Your task to perform on an android device: toggle sleep mode Image 0: 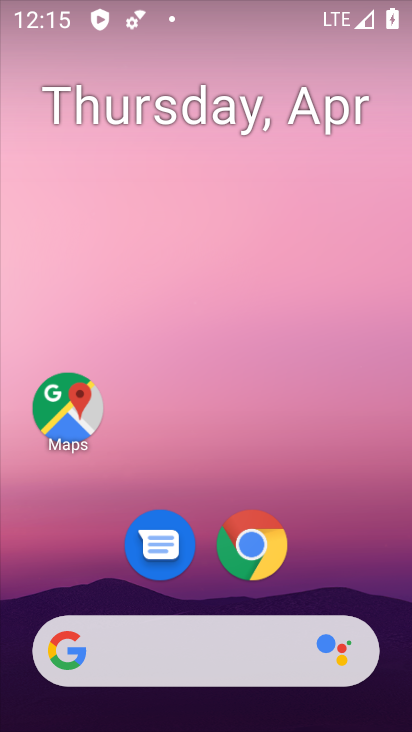
Step 0: drag from (359, 265) to (358, 38)
Your task to perform on an android device: toggle sleep mode Image 1: 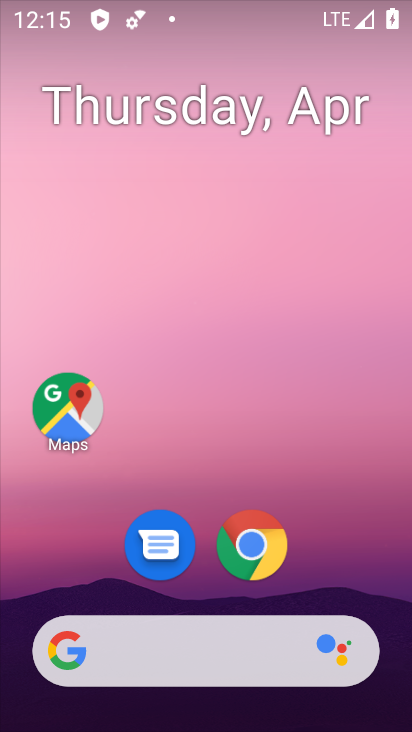
Step 1: drag from (380, 559) to (351, 168)
Your task to perform on an android device: toggle sleep mode Image 2: 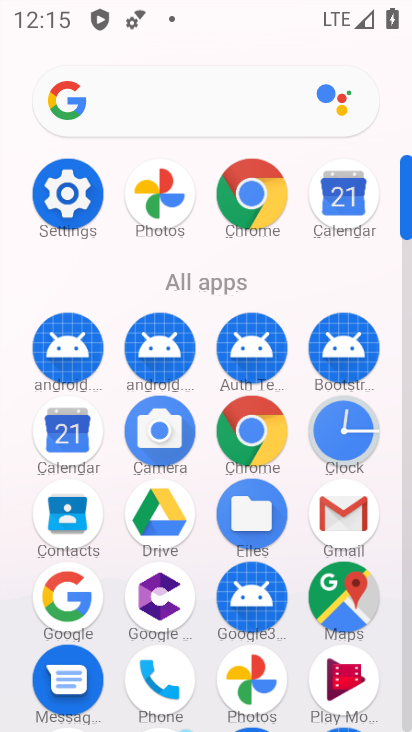
Step 2: click (75, 201)
Your task to perform on an android device: toggle sleep mode Image 3: 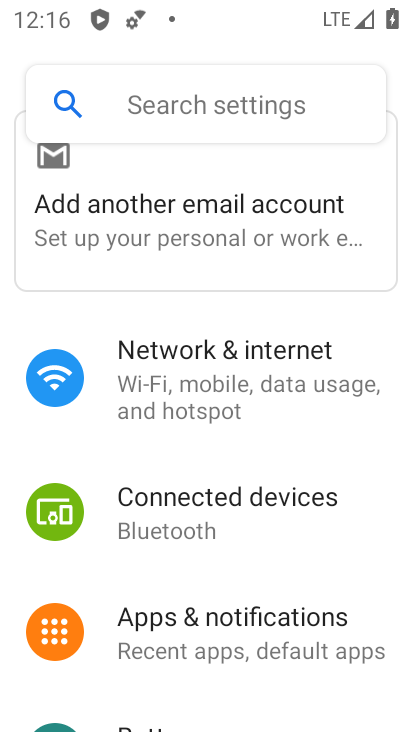
Step 3: drag from (325, 583) to (279, 141)
Your task to perform on an android device: toggle sleep mode Image 4: 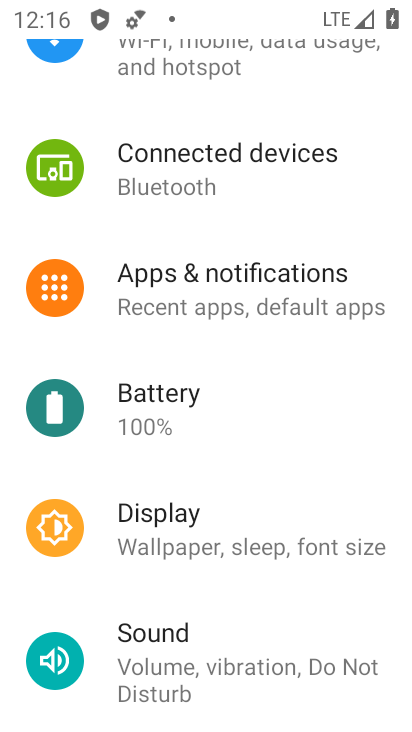
Step 4: click (219, 508)
Your task to perform on an android device: toggle sleep mode Image 5: 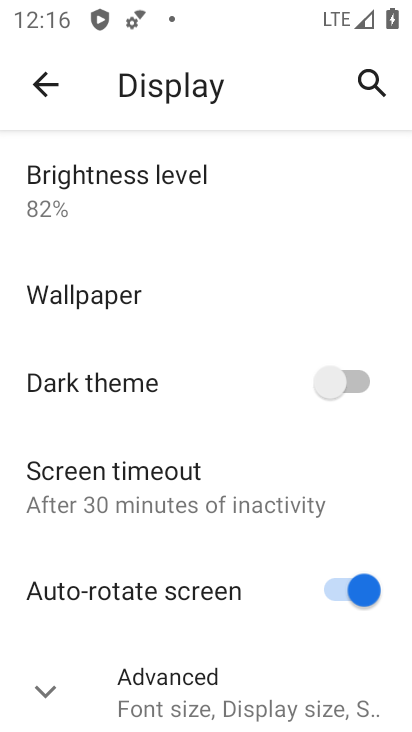
Step 5: click (184, 464)
Your task to perform on an android device: toggle sleep mode Image 6: 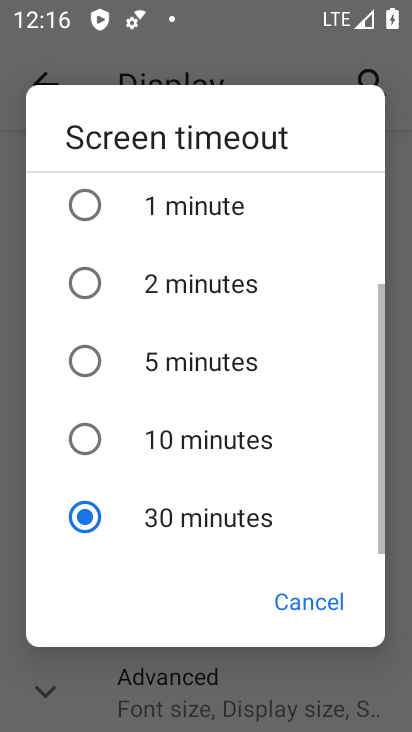
Step 6: drag from (200, 308) to (266, 478)
Your task to perform on an android device: toggle sleep mode Image 7: 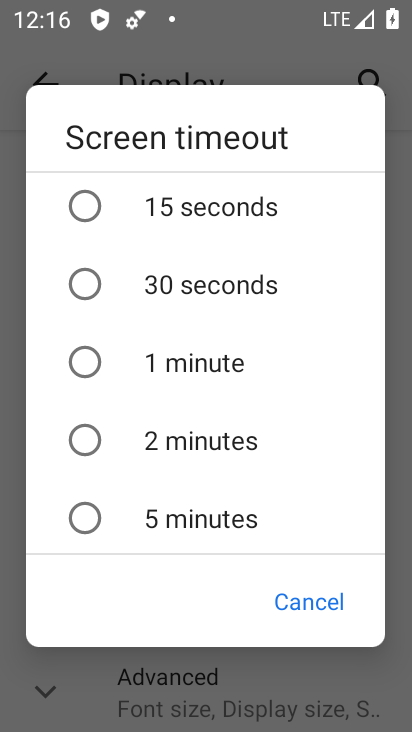
Step 7: drag from (266, 437) to (271, 83)
Your task to perform on an android device: toggle sleep mode Image 8: 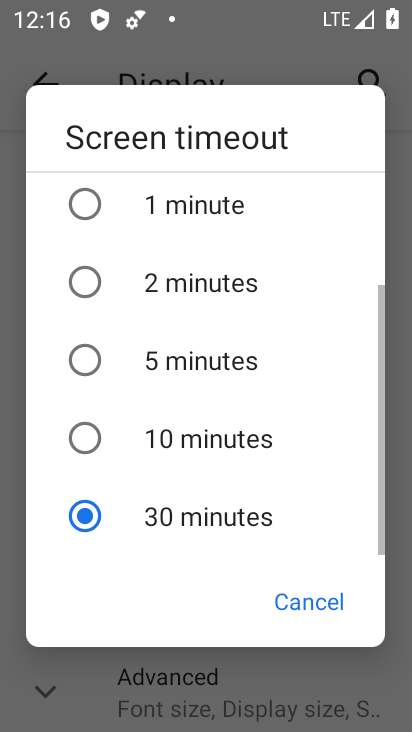
Step 8: click (233, 463)
Your task to perform on an android device: toggle sleep mode Image 9: 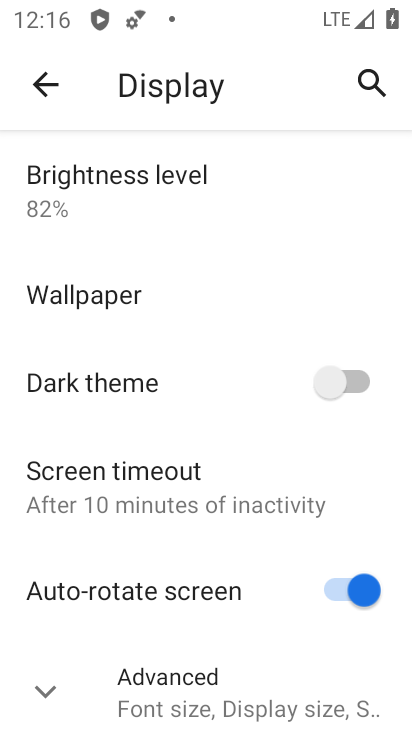
Step 9: task complete